Your task to perform on an android device: Toggle the flashlight Image 0: 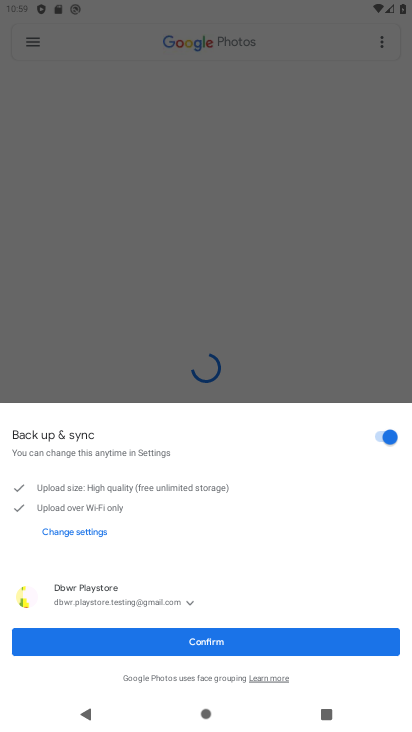
Step 0: press home button
Your task to perform on an android device: Toggle the flashlight Image 1: 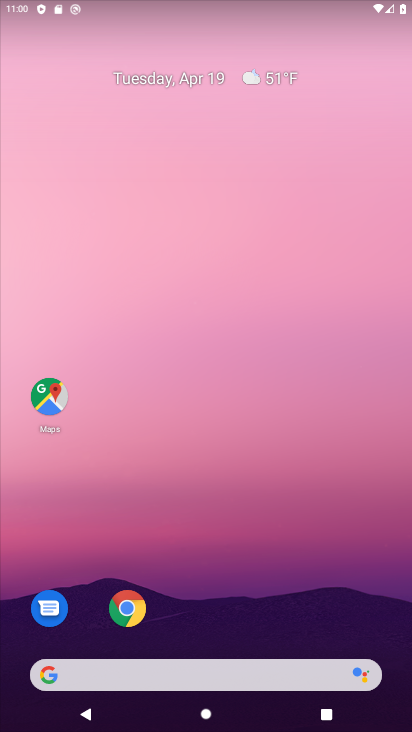
Step 1: drag from (296, 4) to (293, 368)
Your task to perform on an android device: Toggle the flashlight Image 2: 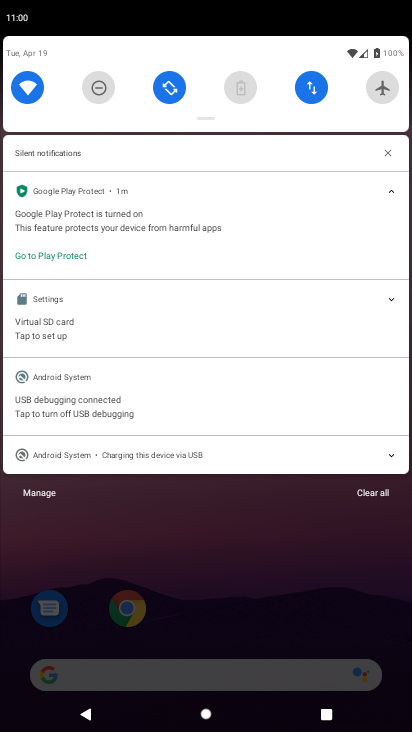
Step 2: drag from (274, 65) to (252, 375)
Your task to perform on an android device: Toggle the flashlight Image 3: 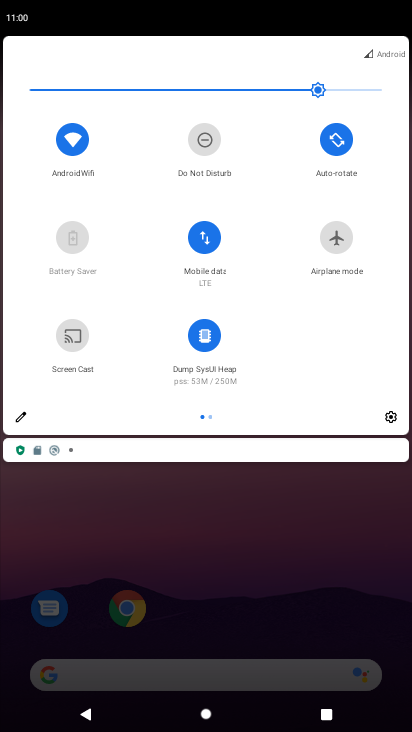
Step 3: click (20, 411)
Your task to perform on an android device: Toggle the flashlight Image 4: 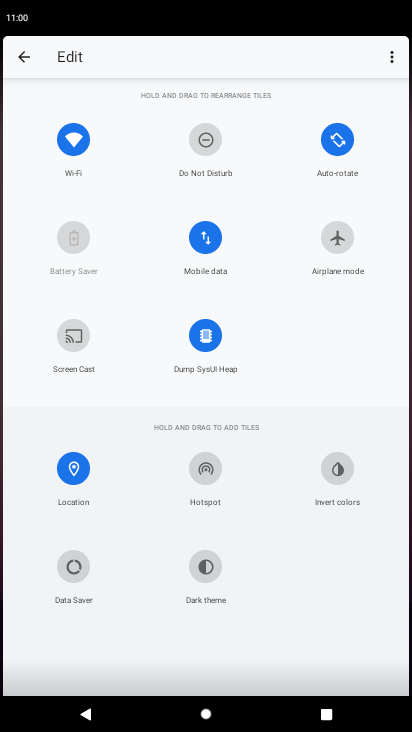
Step 4: task complete